Your task to perform on an android device: Go to eBay Image 0: 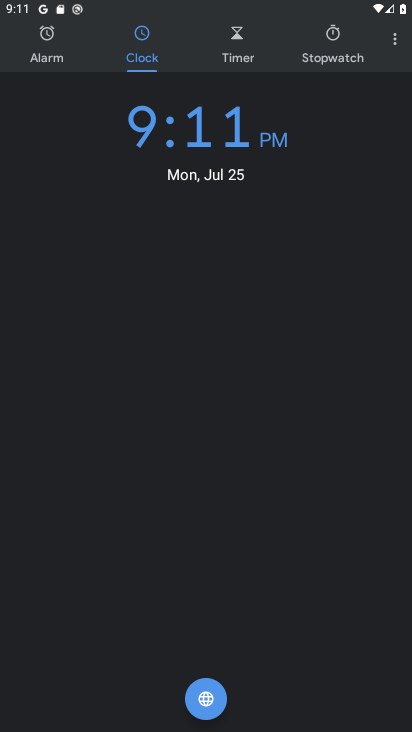
Step 0: press back button
Your task to perform on an android device: Go to eBay Image 1: 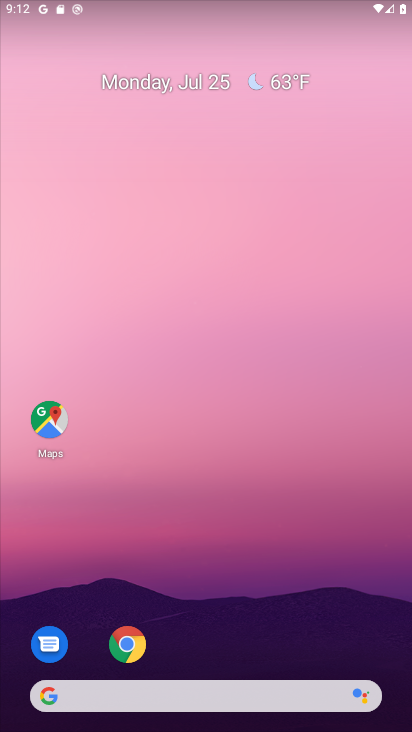
Step 1: drag from (218, 226) to (264, 126)
Your task to perform on an android device: Go to eBay Image 2: 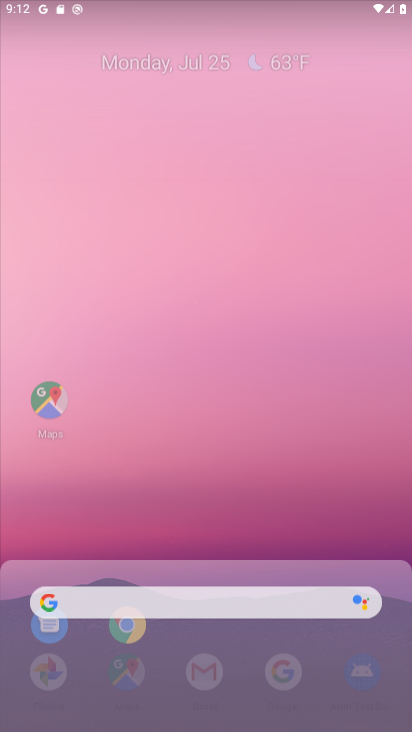
Step 2: drag from (270, 457) to (256, 166)
Your task to perform on an android device: Go to eBay Image 3: 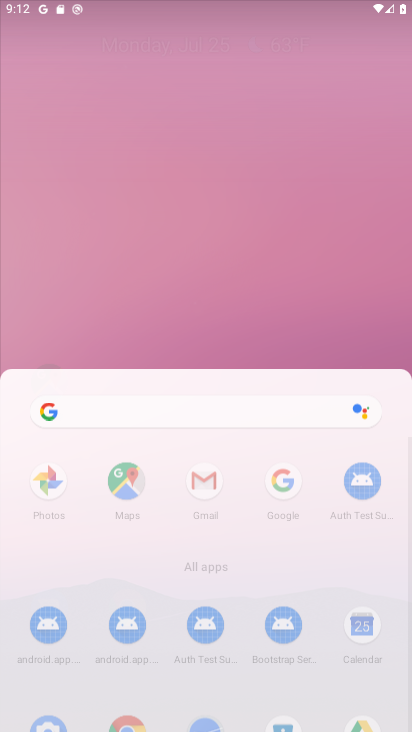
Step 3: drag from (241, 412) to (241, 193)
Your task to perform on an android device: Go to eBay Image 4: 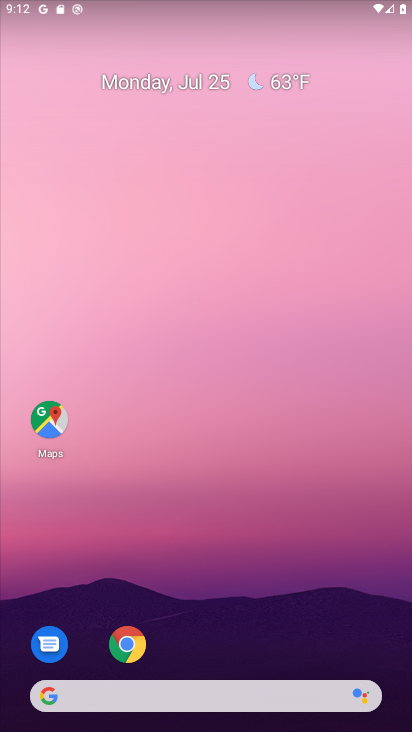
Step 4: drag from (233, 411) to (231, 278)
Your task to perform on an android device: Go to eBay Image 5: 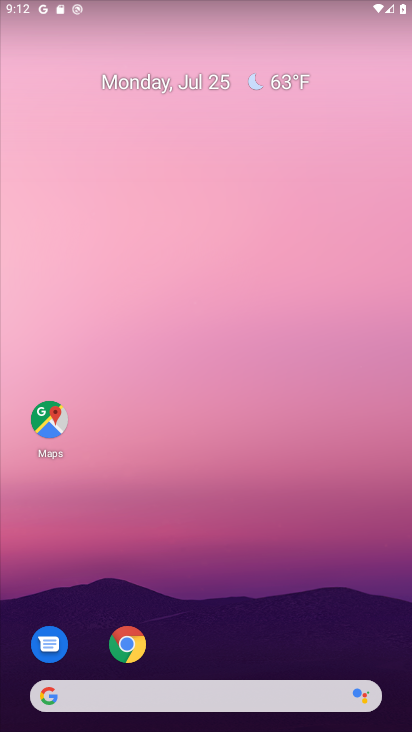
Step 5: click (208, 111)
Your task to perform on an android device: Go to eBay Image 6: 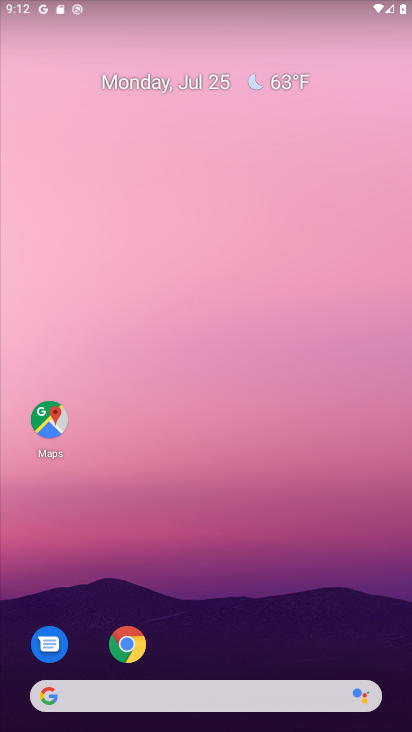
Step 6: drag from (298, 516) to (288, 285)
Your task to perform on an android device: Go to eBay Image 7: 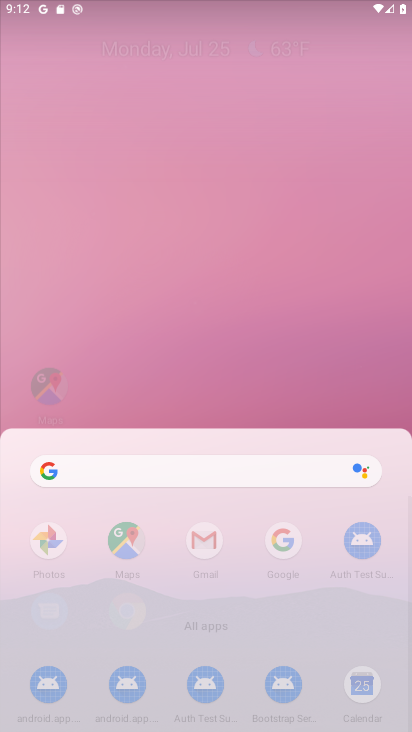
Step 7: drag from (221, 368) to (198, 95)
Your task to perform on an android device: Go to eBay Image 8: 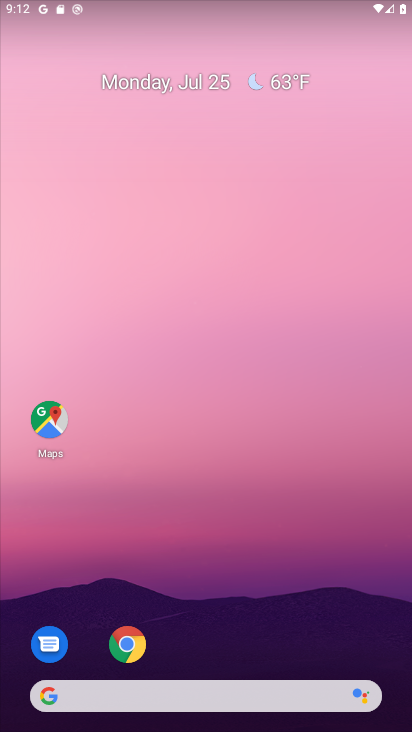
Step 8: drag from (201, 461) to (201, 148)
Your task to perform on an android device: Go to eBay Image 9: 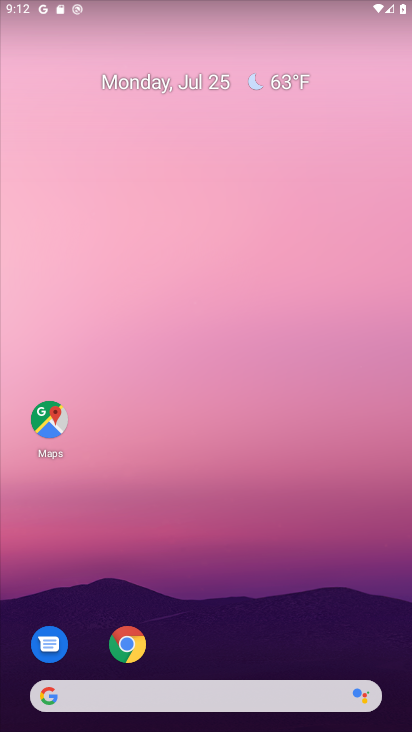
Step 9: drag from (88, 177) to (69, 42)
Your task to perform on an android device: Go to eBay Image 10: 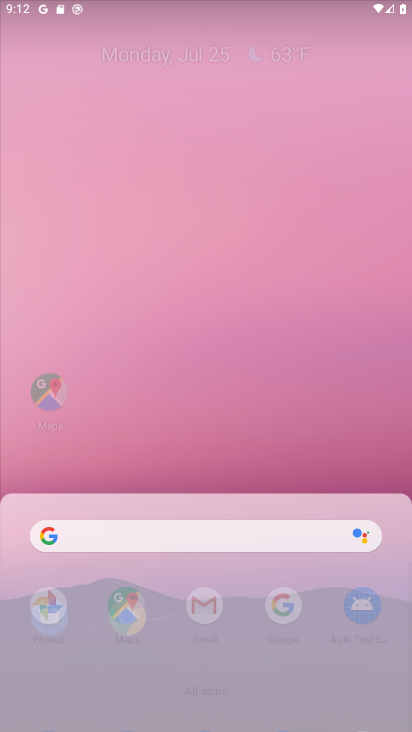
Step 10: drag from (158, 586) to (179, 55)
Your task to perform on an android device: Go to eBay Image 11: 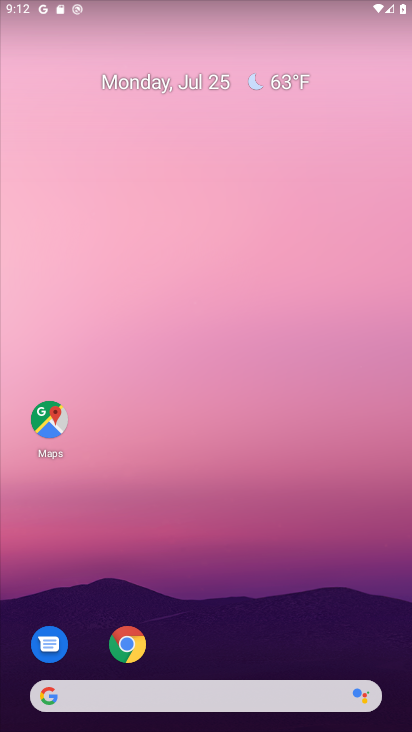
Step 11: drag from (220, 414) to (197, 47)
Your task to perform on an android device: Go to eBay Image 12: 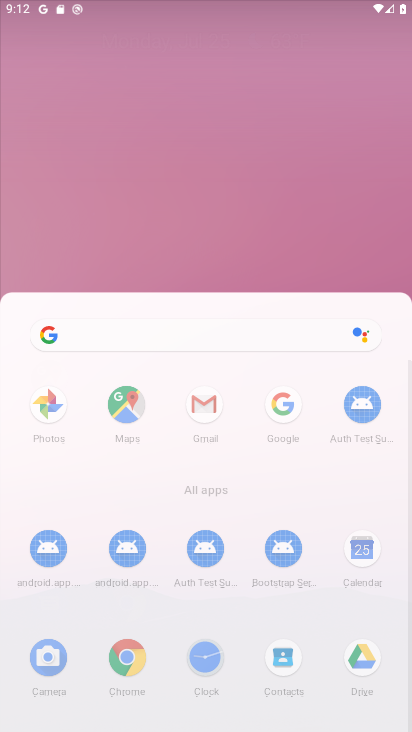
Step 12: drag from (203, 495) to (172, 67)
Your task to perform on an android device: Go to eBay Image 13: 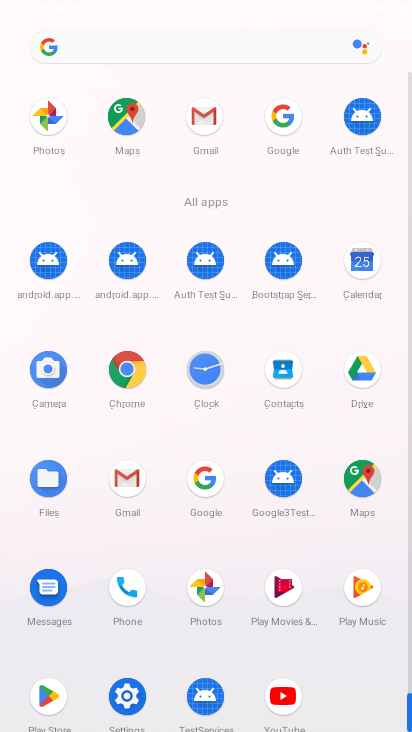
Step 13: drag from (253, 426) to (240, 253)
Your task to perform on an android device: Go to eBay Image 14: 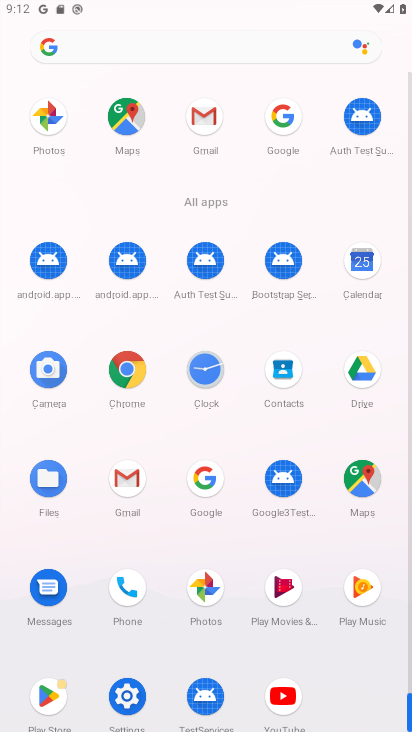
Step 14: click (124, 375)
Your task to perform on an android device: Go to eBay Image 15: 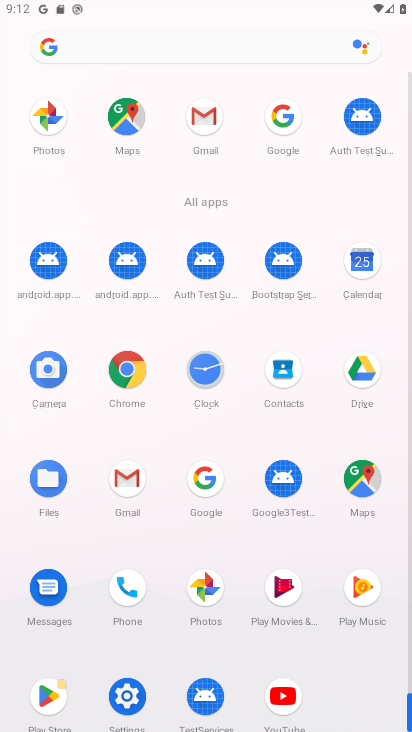
Step 15: click (129, 372)
Your task to perform on an android device: Go to eBay Image 16: 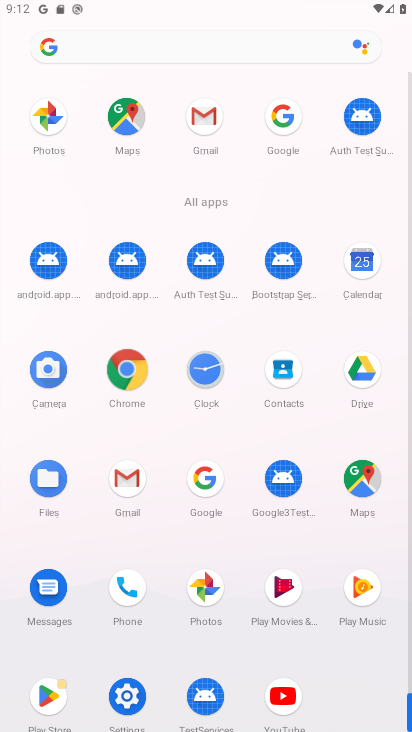
Step 16: click (131, 373)
Your task to perform on an android device: Go to eBay Image 17: 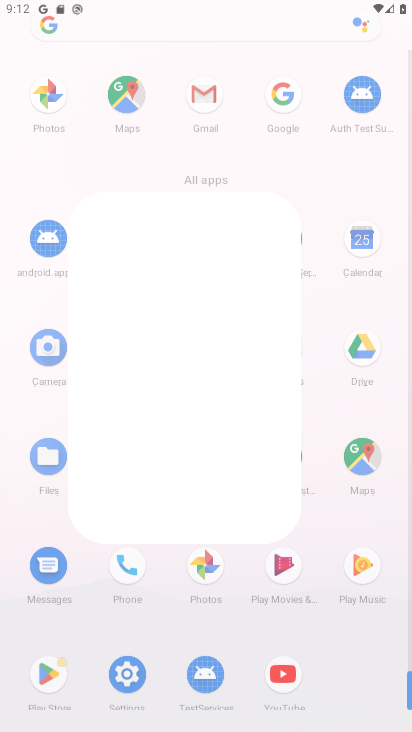
Step 17: click (133, 371)
Your task to perform on an android device: Go to eBay Image 18: 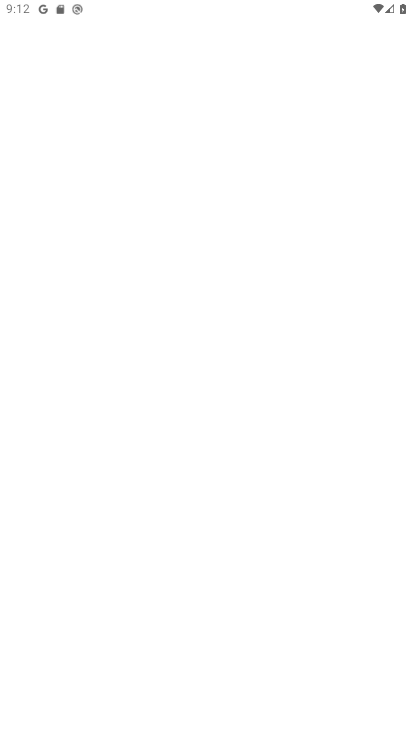
Step 18: click (135, 369)
Your task to perform on an android device: Go to eBay Image 19: 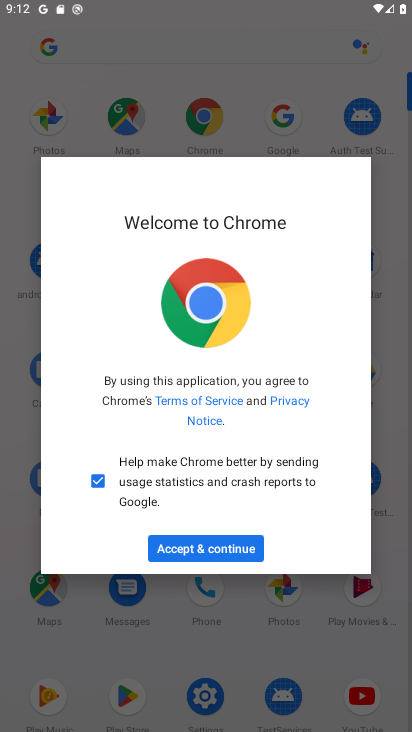
Step 19: click (255, 556)
Your task to perform on an android device: Go to eBay Image 20: 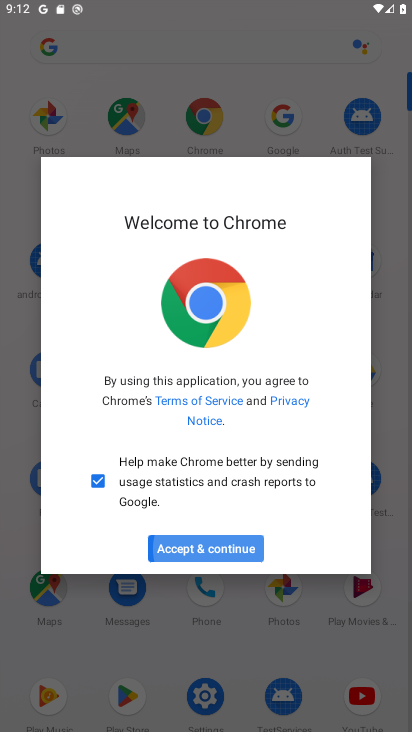
Step 20: click (255, 556)
Your task to perform on an android device: Go to eBay Image 21: 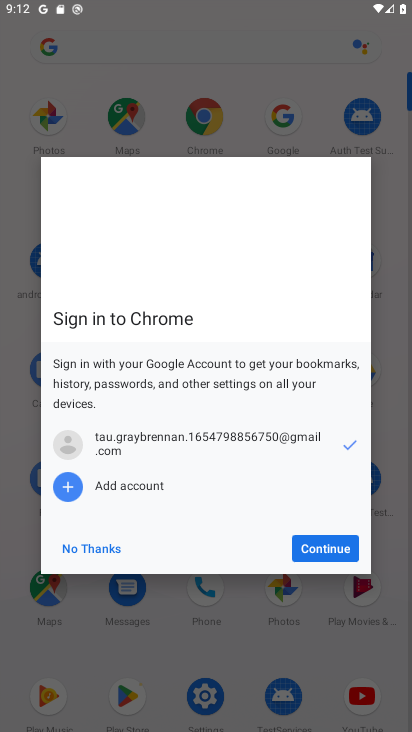
Step 21: click (89, 540)
Your task to perform on an android device: Go to eBay Image 22: 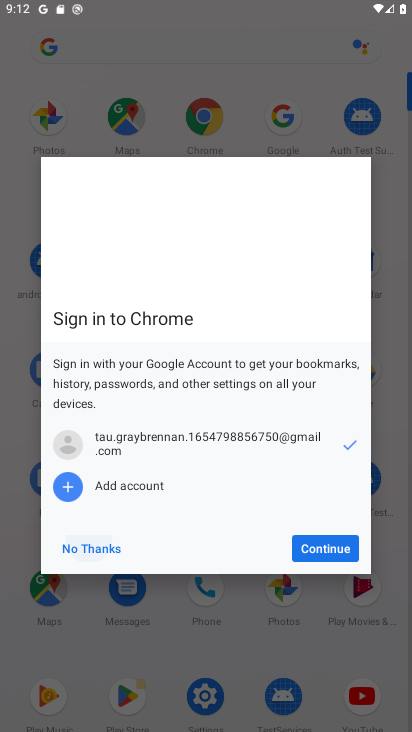
Step 22: click (92, 542)
Your task to perform on an android device: Go to eBay Image 23: 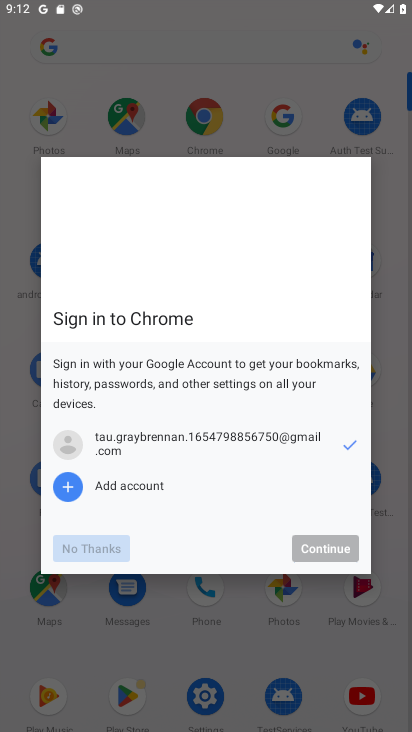
Step 23: click (96, 544)
Your task to perform on an android device: Go to eBay Image 24: 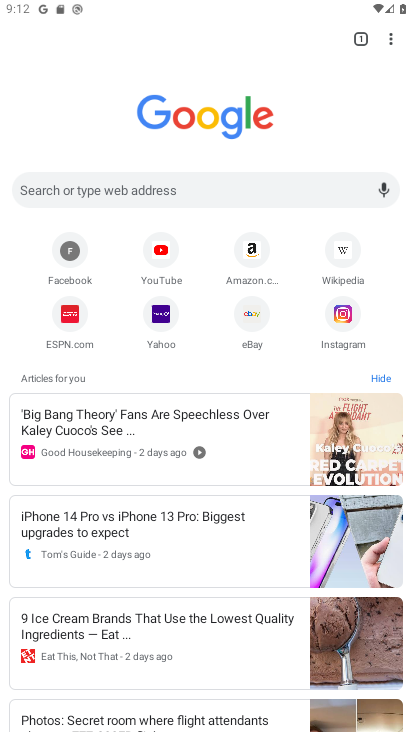
Step 24: task complete